Your task to perform on an android device: Open network settings Image 0: 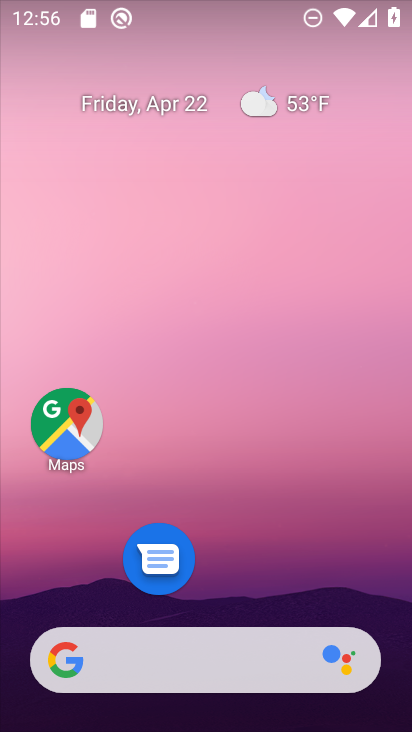
Step 0: drag from (255, 720) to (256, 64)
Your task to perform on an android device: Open network settings Image 1: 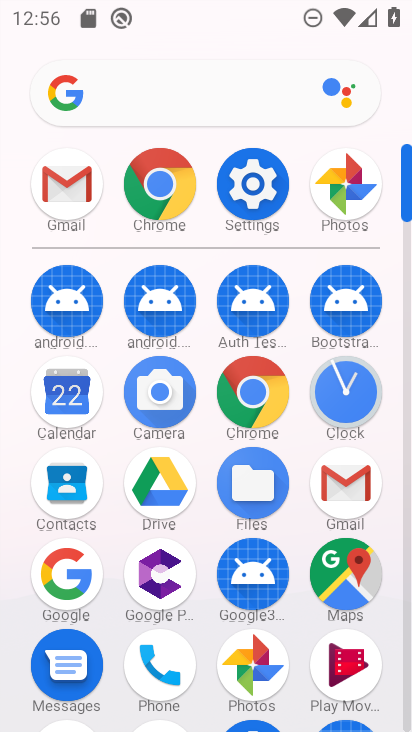
Step 1: click (256, 183)
Your task to perform on an android device: Open network settings Image 2: 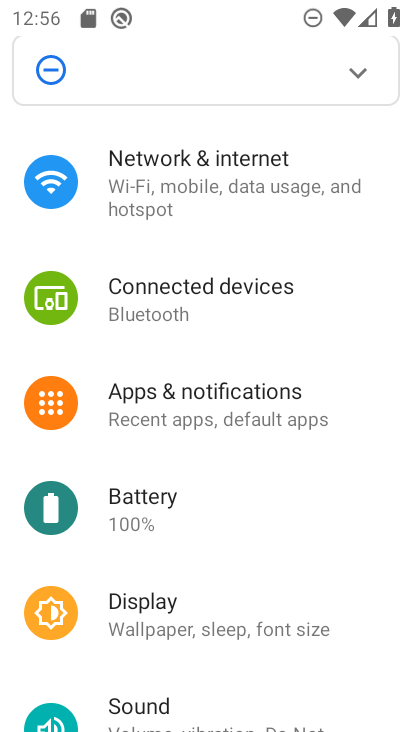
Step 2: click (242, 178)
Your task to perform on an android device: Open network settings Image 3: 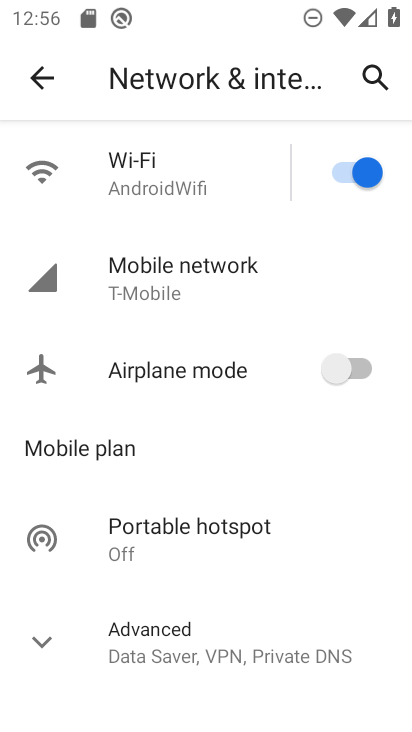
Step 3: click (160, 277)
Your task to perform on an android device: Open network settings Image 4: 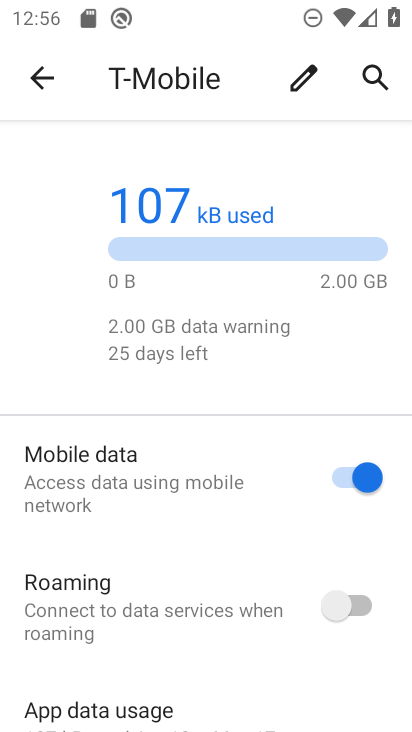
Step 4: task complete